Your task to perform on an android device: What's the weather going to be tomorrow? Image 0: 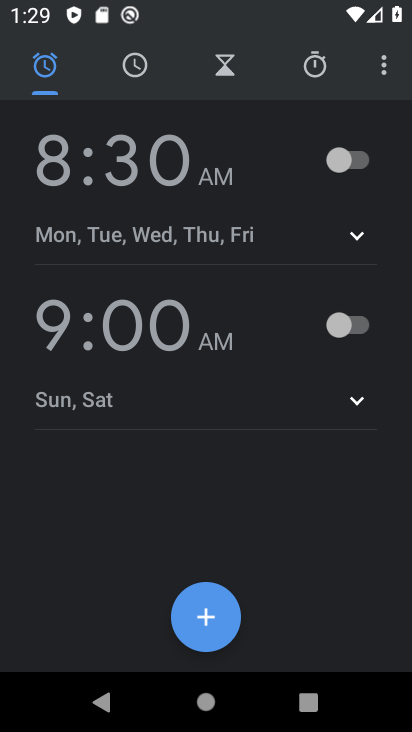
Step 0: press home button
Your task to perform on an android device: What's the weather going to be tomorrow? Image 1: 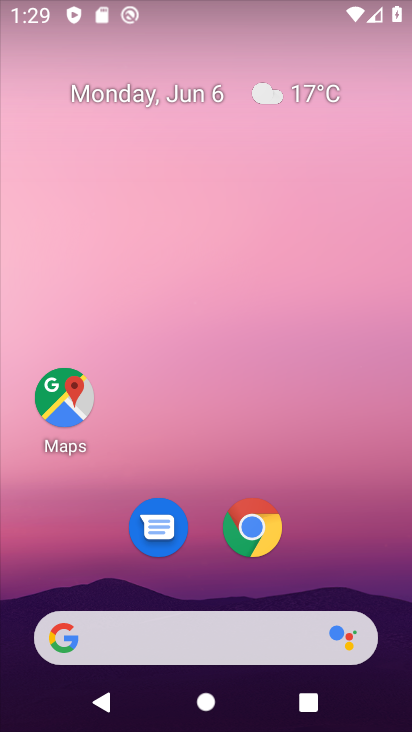
Step 1: drag from (226, 725) to (216, 68)
Your task to perform on an android device: What's the weather going to be tomorrow? Image 2: 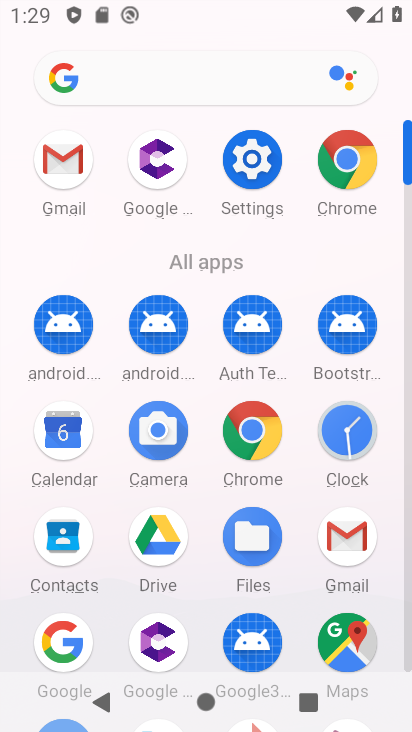
Step 2: click (58, 644)
Your task to perform on an android device: What's the weather going to be tomorrow? Image 3: 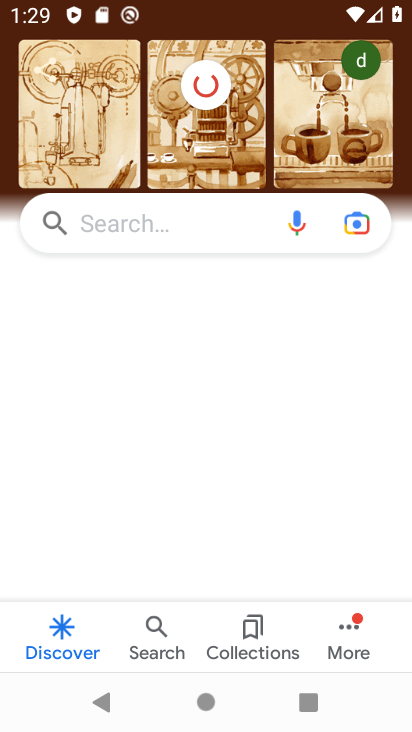
Step 3: click (222, 227)
Your task to perform on an android device: What's the weather going to be tomorrow? Image 4: 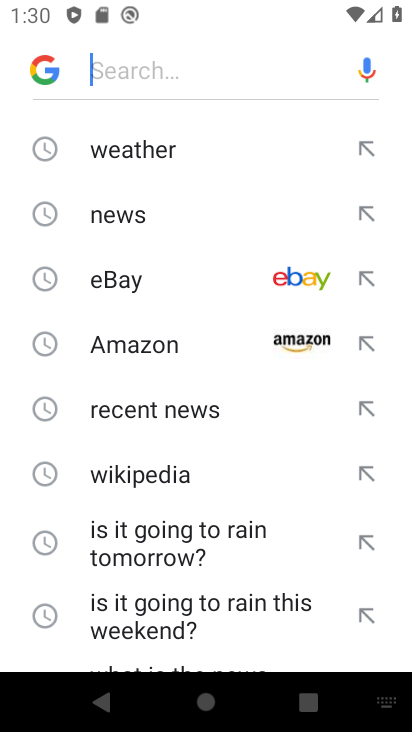
Step 4: click (133, 148)
Your task to perform on an android device: What's the weather going to be tomorrow? Image 5: 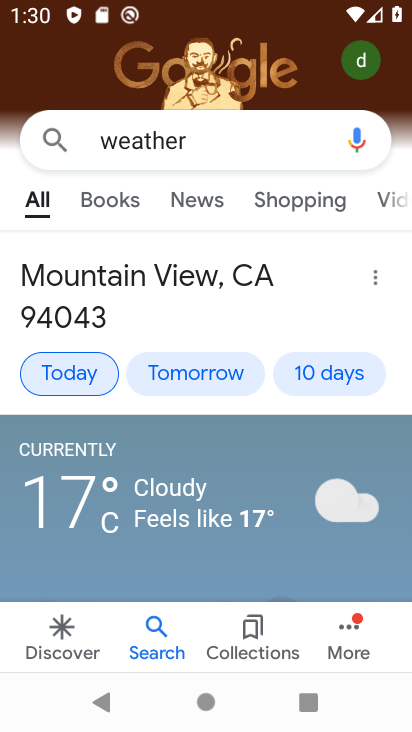
Step 5: click (192, 375)
Your task to perform on an android device: What's the weather going to be tomorrow? Image 6: 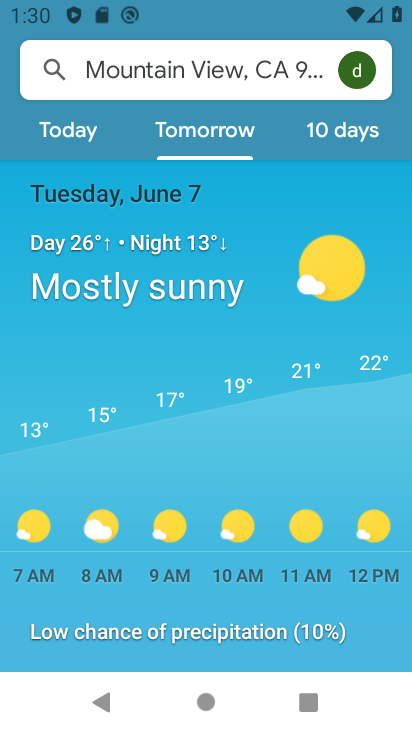
Step 6: task complete